Your task to perform on an android device: toggle airplane mode Image 0: 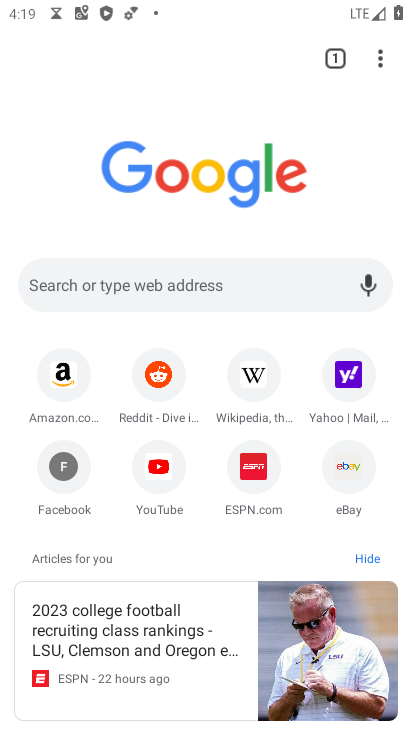
Step 0: press home button
Your task to perform on an android device: toggle airplane mode Image 1: 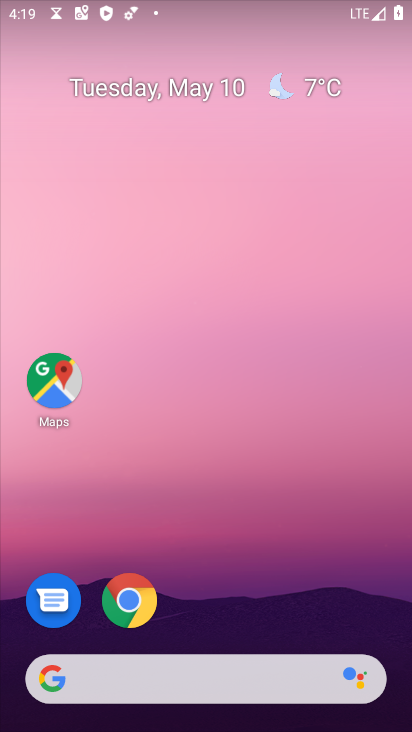
Step 1: drag from (253, 581) to (351, 239)
Your task to perform on an android device: toggle airplane mode Image 2: 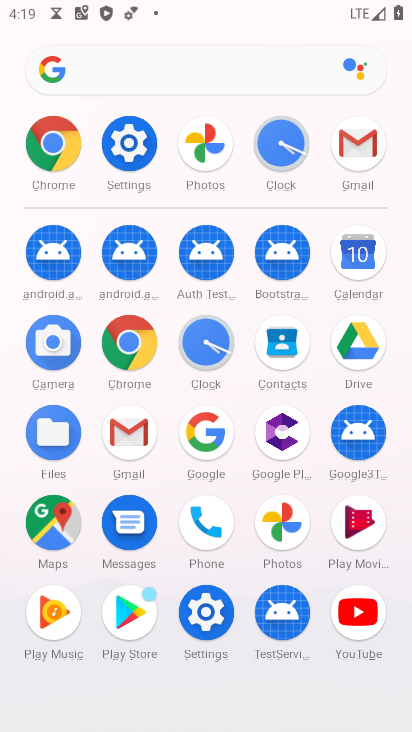
Step 2: click (49, 149)
Your task to perform on an android device: toggle airplane mode Image 3: 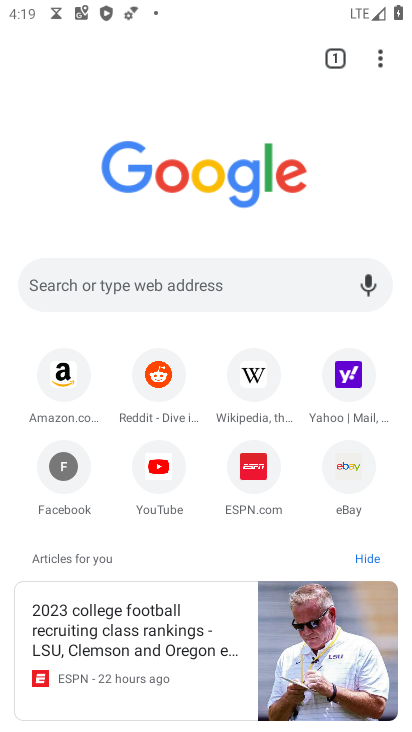
Step 3: click (383, 56)
Your task to perform on an android device: toggle airplane mode Image 4: 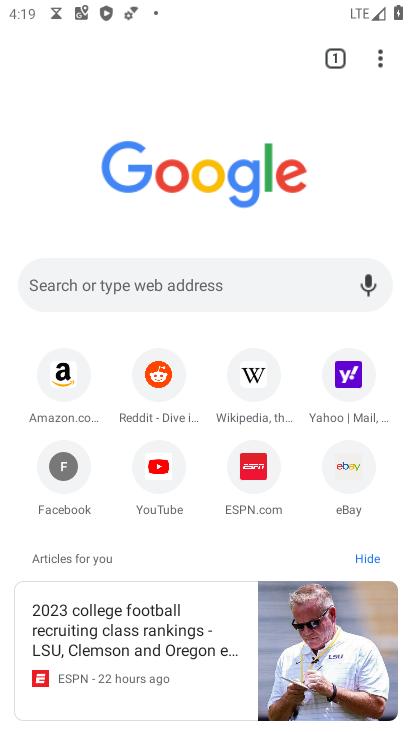
Step 4: click (383, 56)
Your task to perform on an android device: toggle airplane mode Image 5: 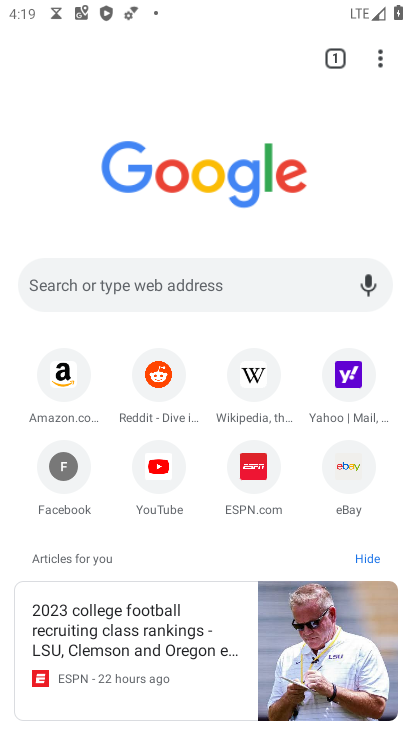
Step 5: click (383, 56)
Your task to perform on an android device: toggle airplane mode Image 6: 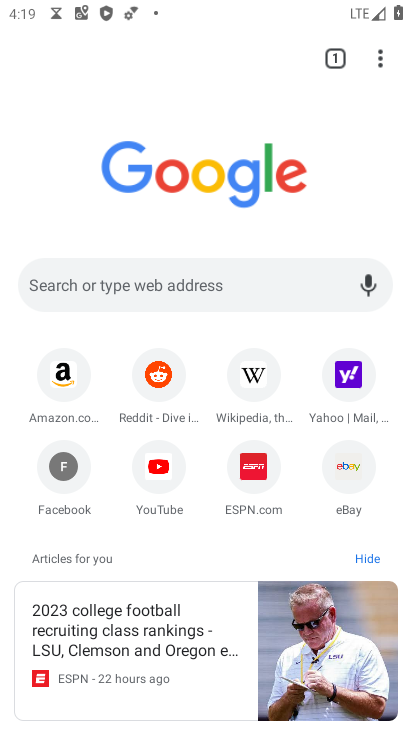
Step 6: click (378, 52)
Your task to perform on an android device: toggle airplane mode Image 7: 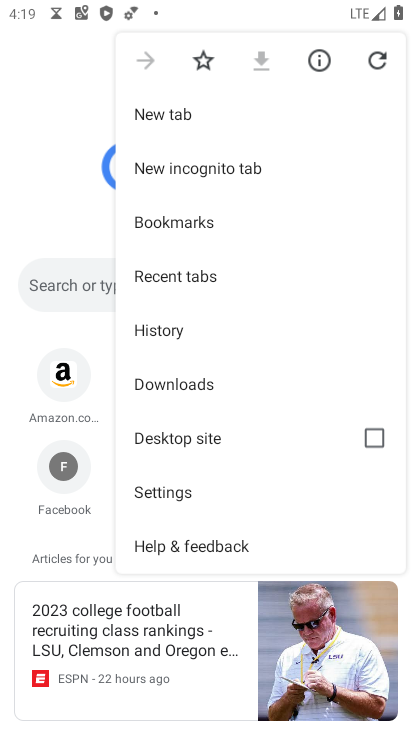
Step 7: click (217, 485)
Your task to perform on an android device: toggle airplane mode Image 8: 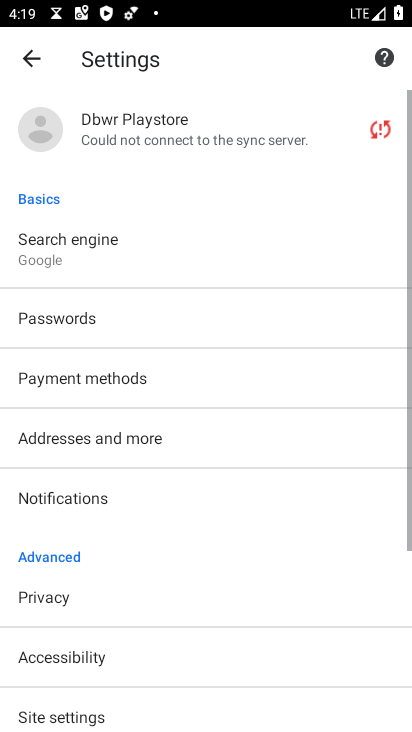
Step 8: drag from (142, 563) to (200, 228)
Your task to perform on an android device: toggle airplane mode Image 9: 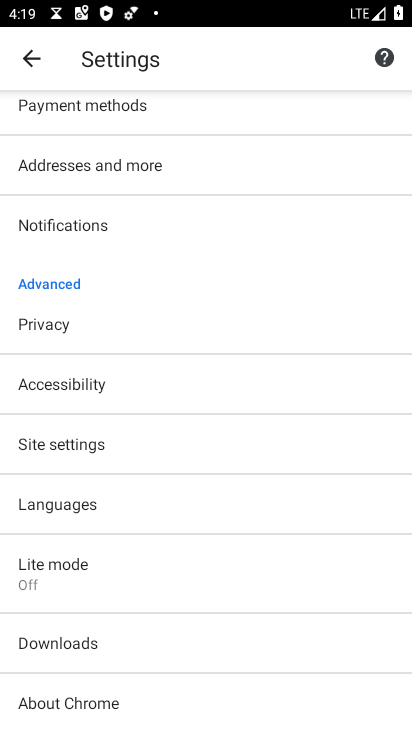
Step 9: click (195, 429)
Your task to perform on an android device: toggle airplane mode Image 10: 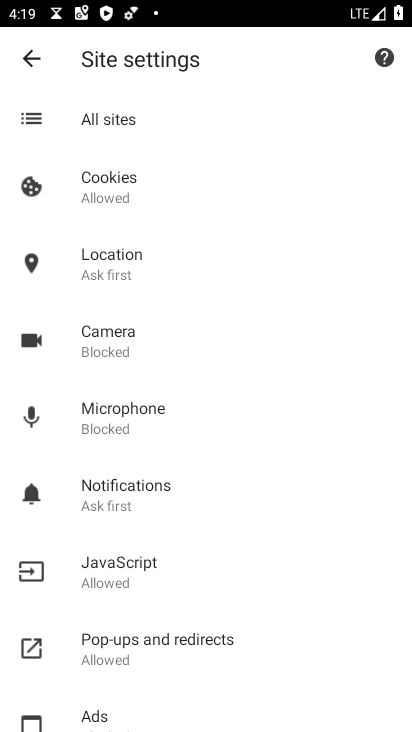
Step 10: task complete